Your task to perform on an android device: visit the assistant section in the google photos Image 0: 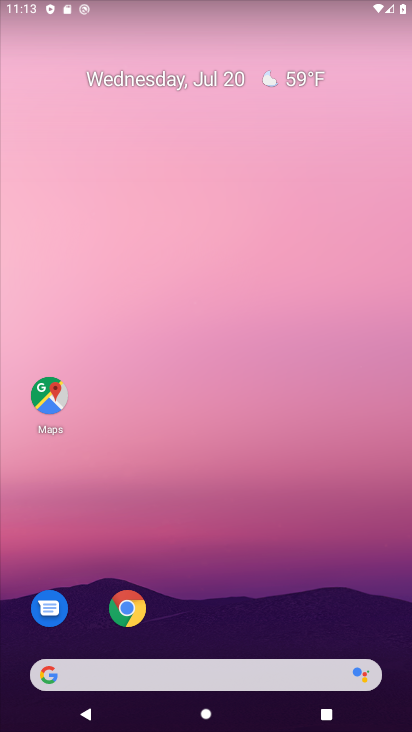
Step 0: drag from (317, 596) to (371, 86)
Your task to perform on an android device: visit the assistant section in the google photos Image 1: 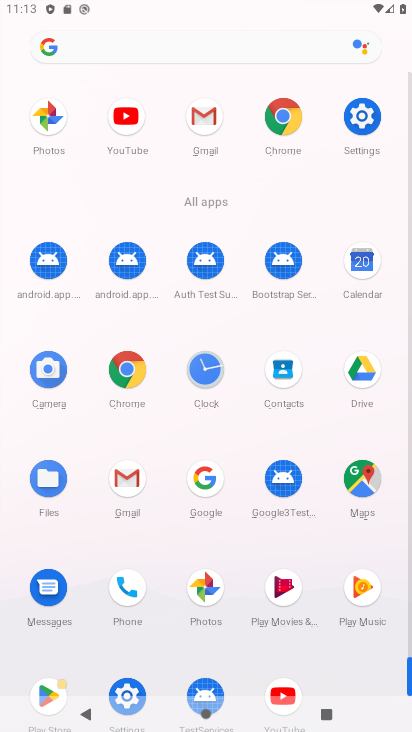
Step 1: click (201, 588)
Your task to perform on an android device: visit the assistant section in the google photos Image 2: 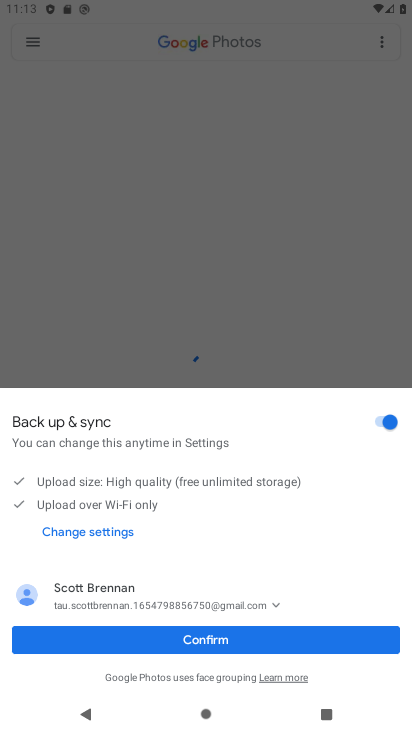
Step 2: click (341, 642)
Your task to perform on an android device: visit the assistant section in the google photos Image 3: 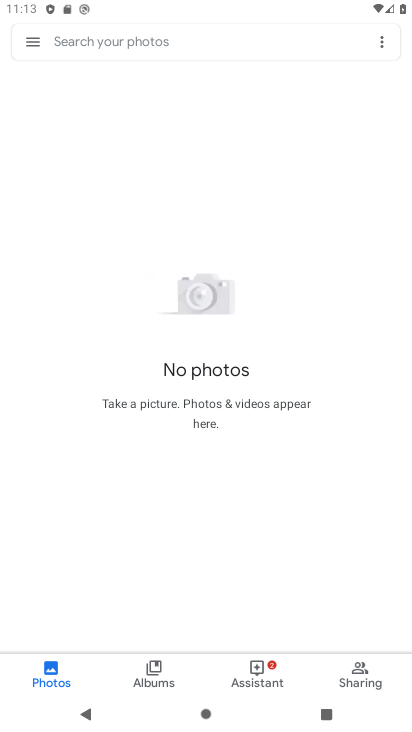
Step 3: click (256, 675)
Your task to perform on an android device: visit the assistant section in the google photos Image 4: 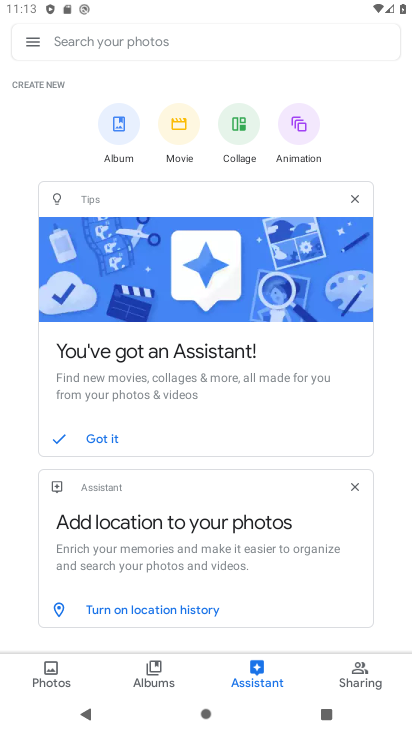
Step 4: task complete